Your task to perform on an android device: Do I have any events today? Image 0: 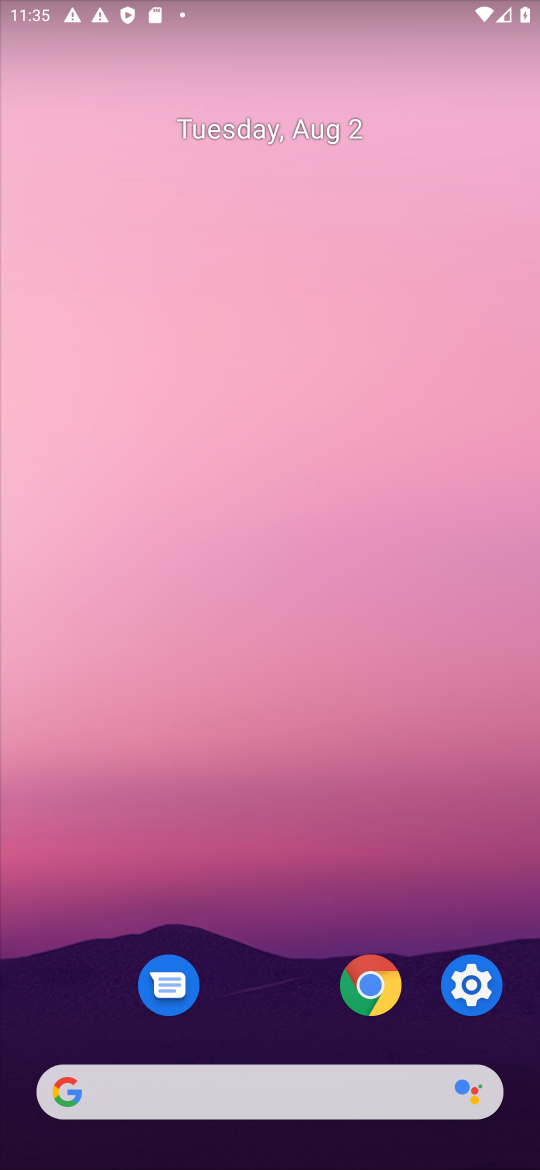
Step 0: press home button
Your task to perform on an android device: Do I have any events today? Image 1: 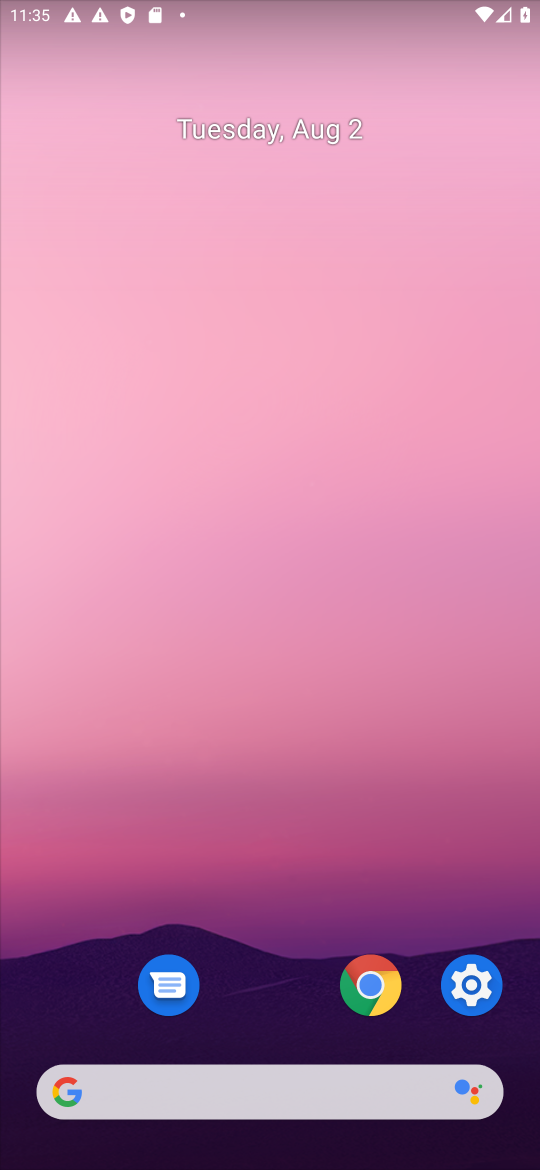
Step 1: drag from (276, 1078) to (215, 257)
Your task to perform on an android device: Do I have any events today? Image 2: 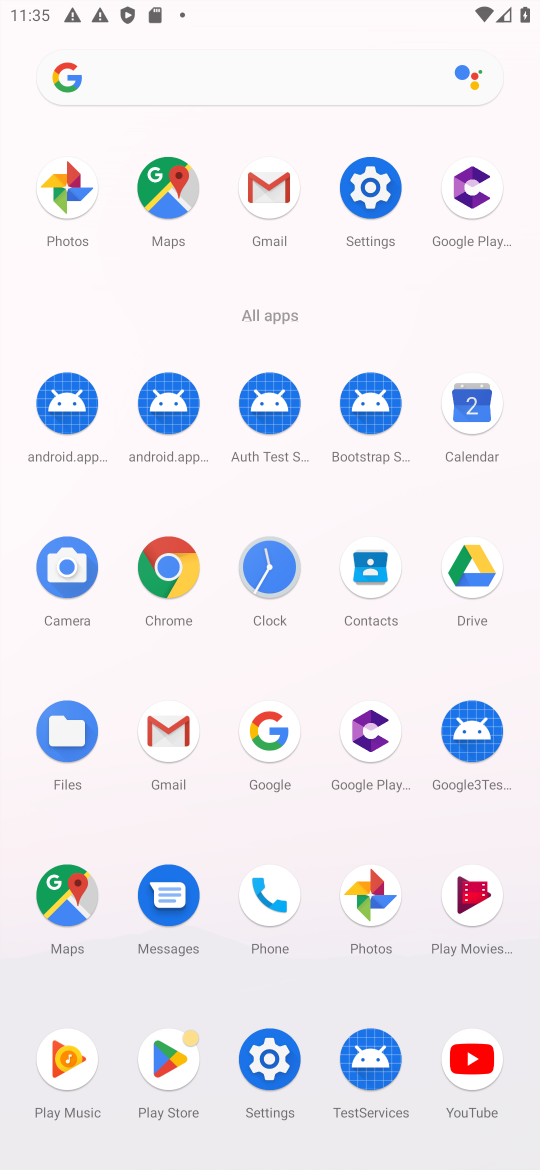
Step 2: click (480, 430)
Your task to perform on an android device: Do I have any events today? Image 3: 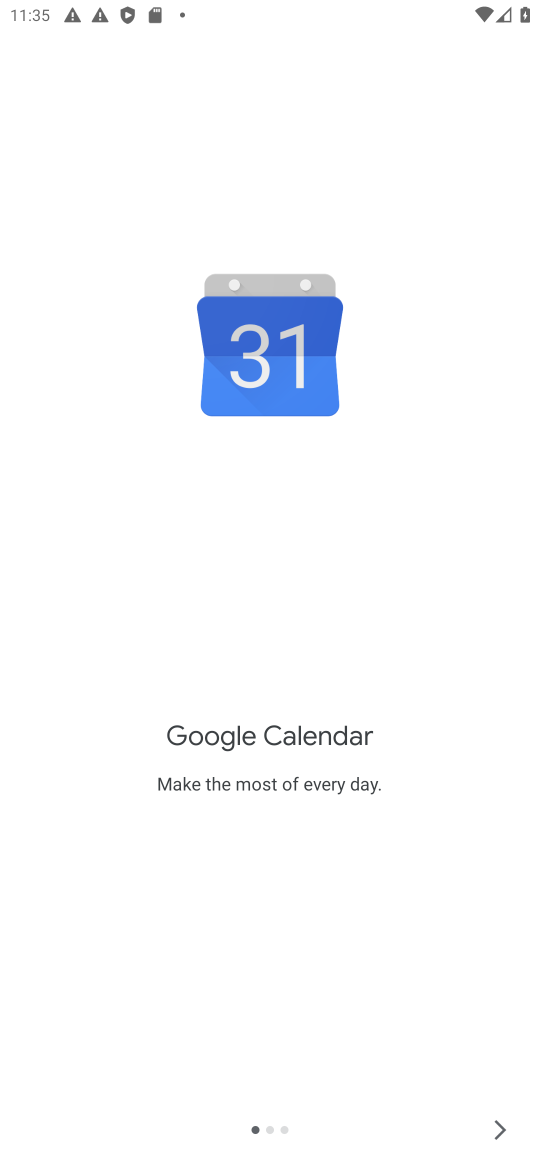
Step 3: click (463, 1117)
Your task to perform on an android device: Do I have any events today? Image 4: 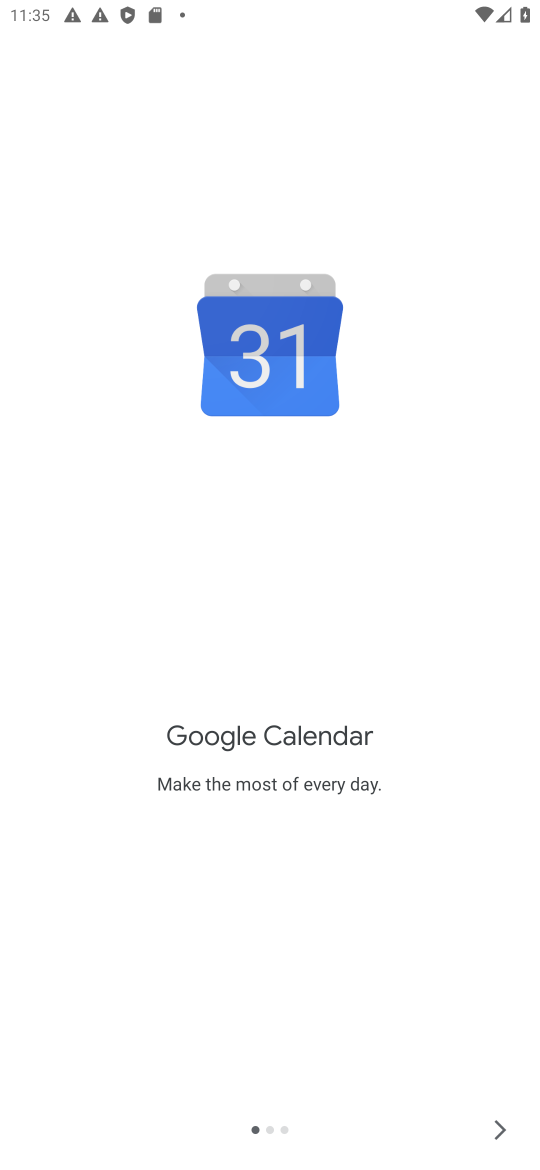
Step 4: click (460, 1110)
Your task to perform on an android device: Do I have any events today? Image 5: 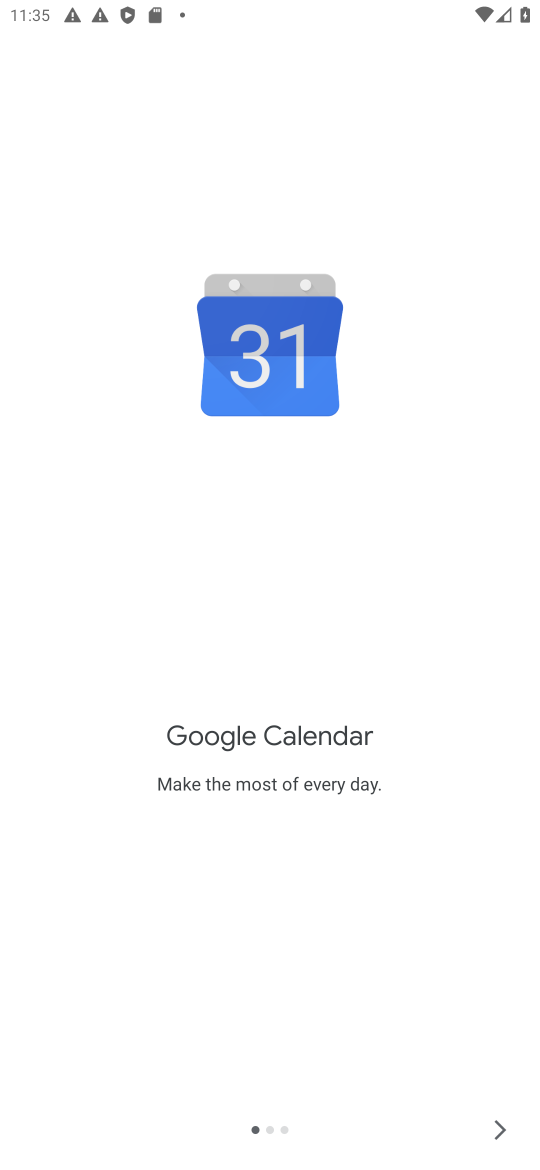
Step 5: click (491, 1136)
Your task to perform on an android device: Do I have any events today? Image 6: 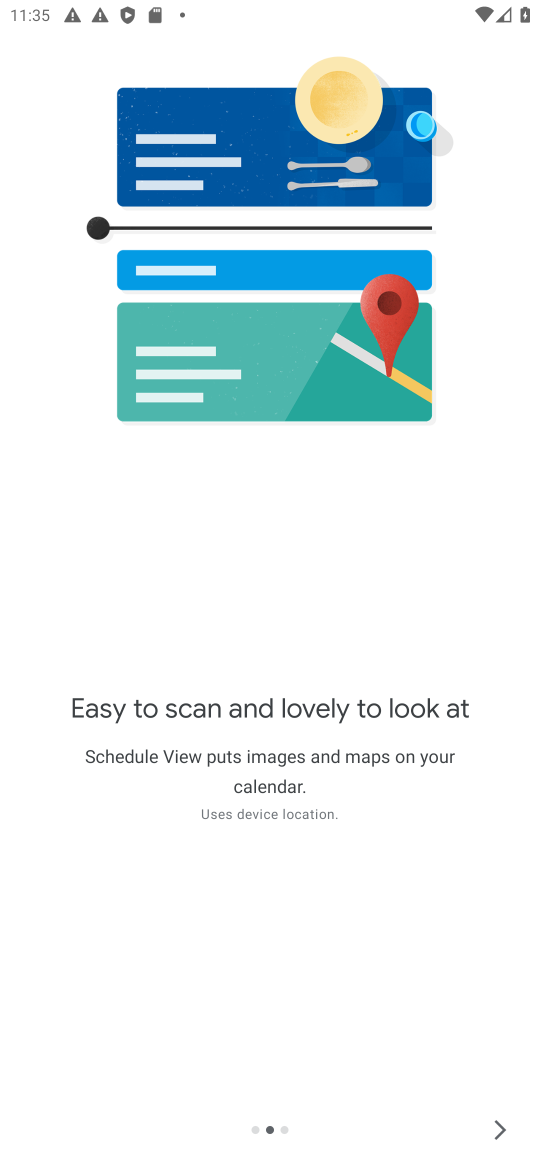
Step 6: click (491, 1136)
Your task to perform on an android device: Do I have any events today? Image 7: 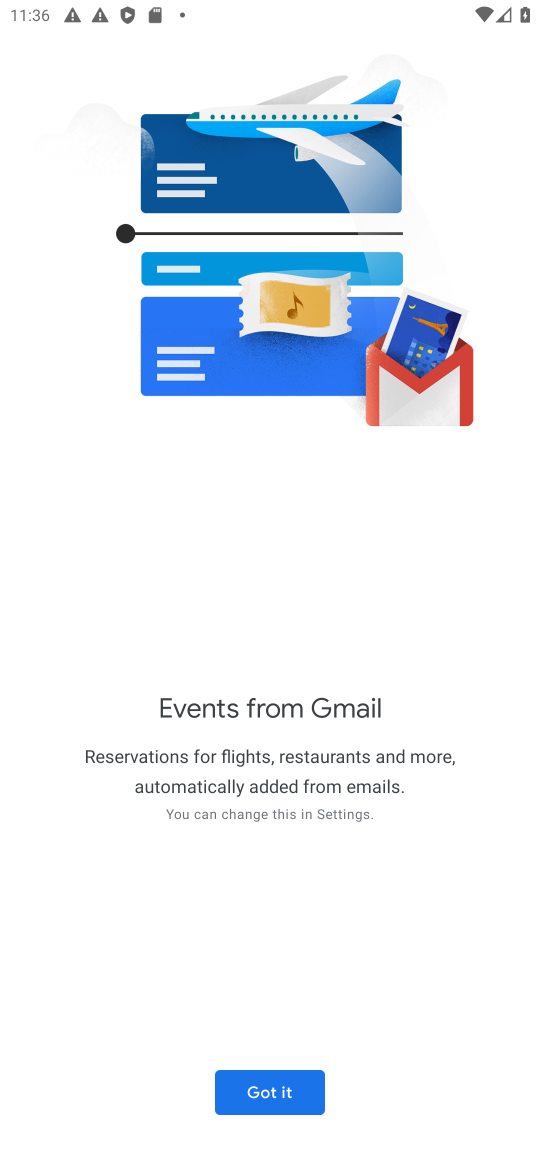
Step 7: click (251, 1100)
Your task to perform on an android device: Do I have any events today? Image 8: 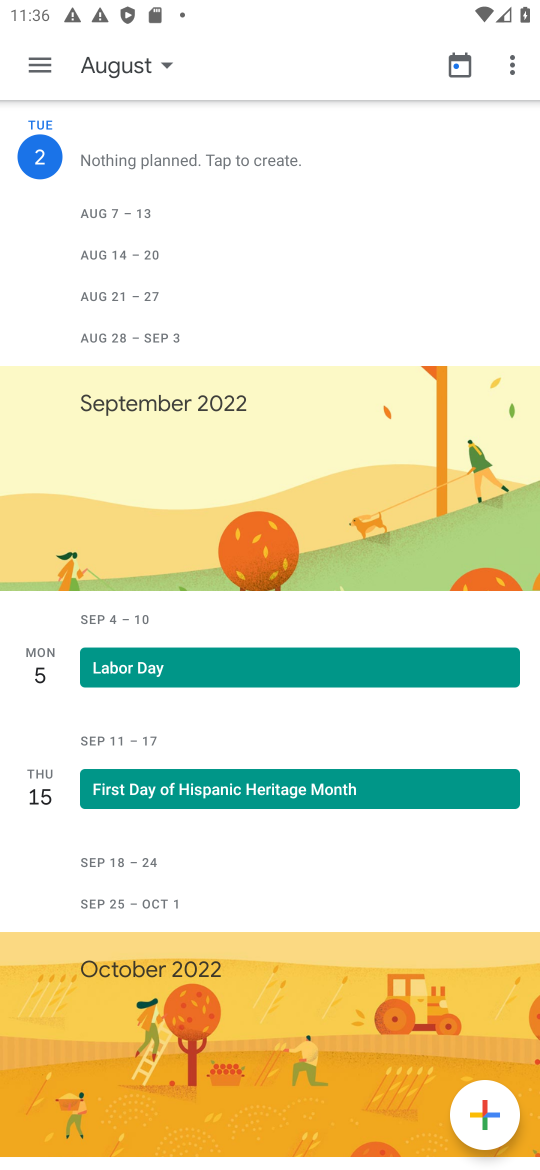
Step 8: click (35, 59)
Your task to perform on an android device: Do I have any events today? Image 9: 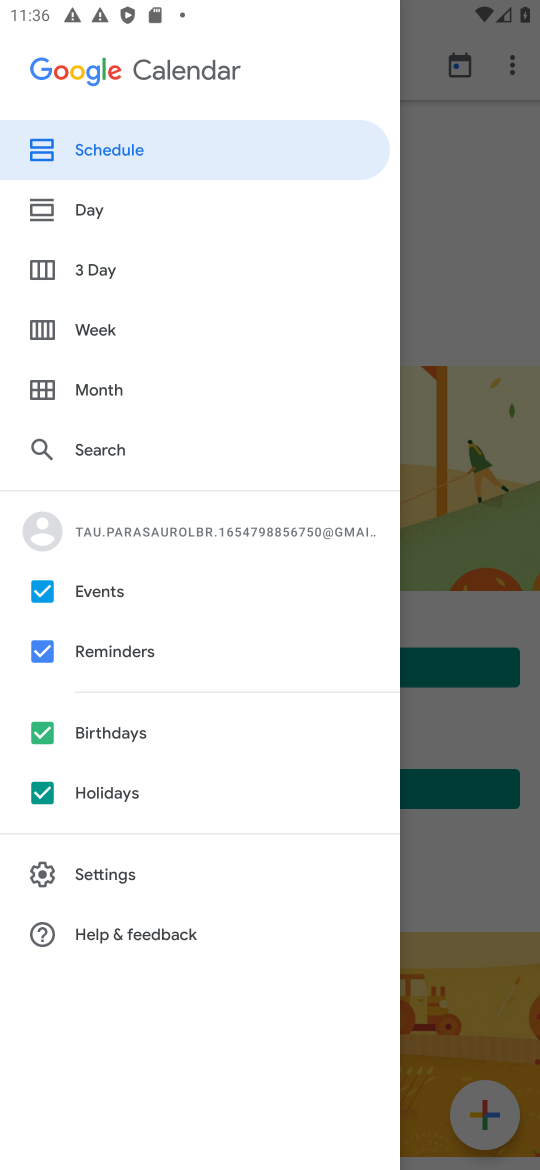
Step 9: click (114, 179)
Your task to perform on an android device: Do I have any events today? Image 10: 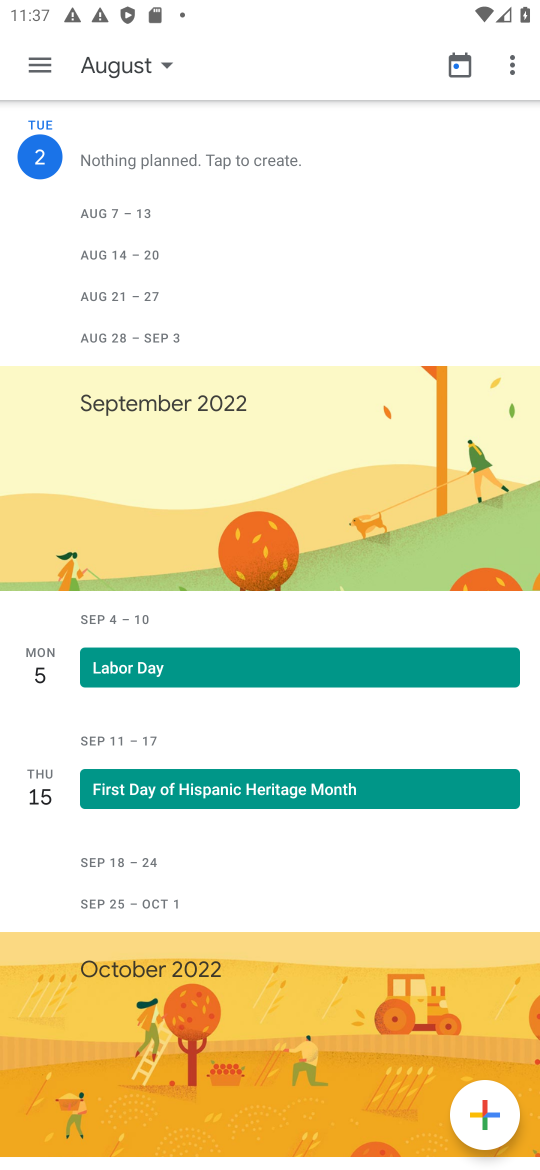
Step 10: task complete